Your task to perform on an android device: see sites visited before in the chrome app Image 0: 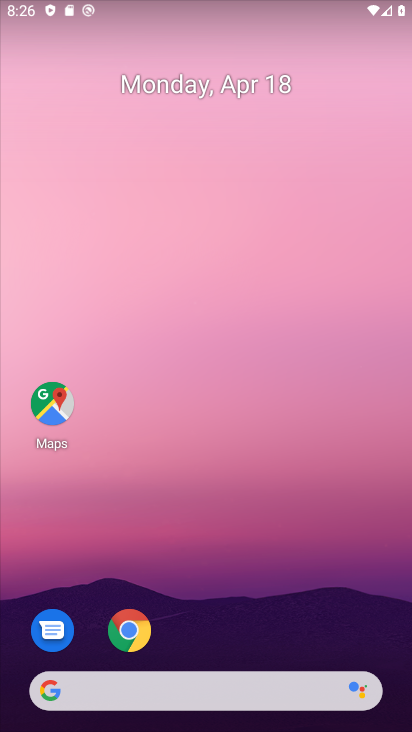
Step 0: click (124, 633)
Your task to perform on an android device: see sites visited before in the chrome app Image 1: 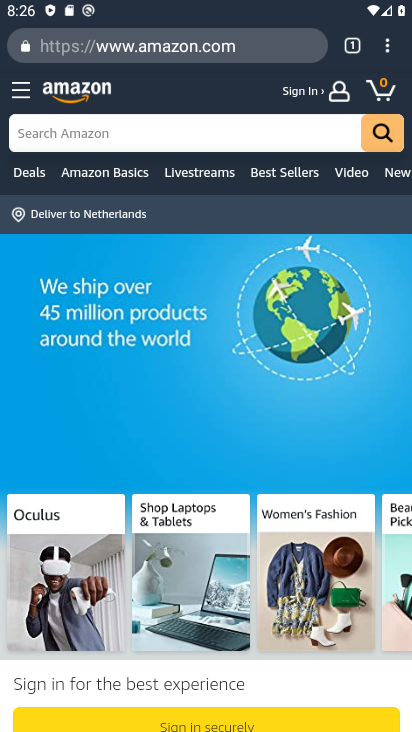
Step 1: click (388, 54)
Your task to perform on an android device: see sites visited before in the chrome app Image 2: 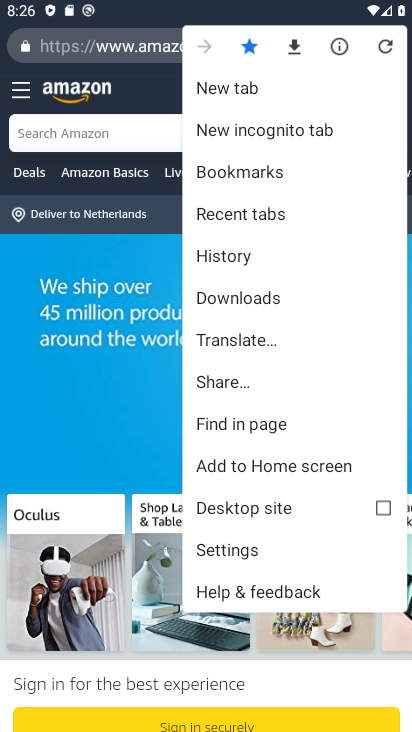
Step 2: click (236, 553)
Your task to perform on an android device: see sites visited before in the chrome app Image 3: 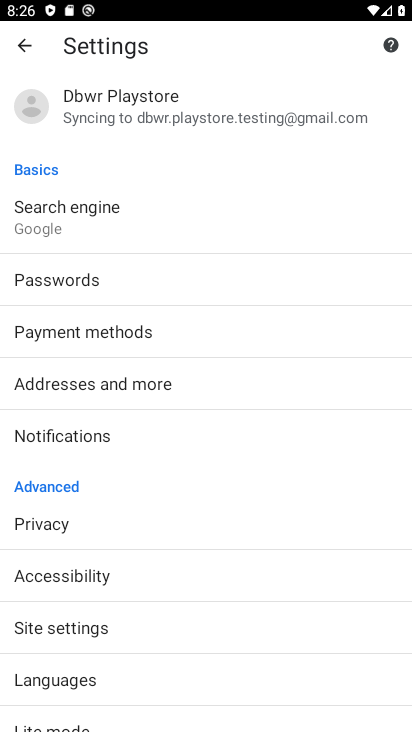
Step 3: click (27, 42)
Your task to perform on an android device: see sites visited before in the chrome app Image 4: 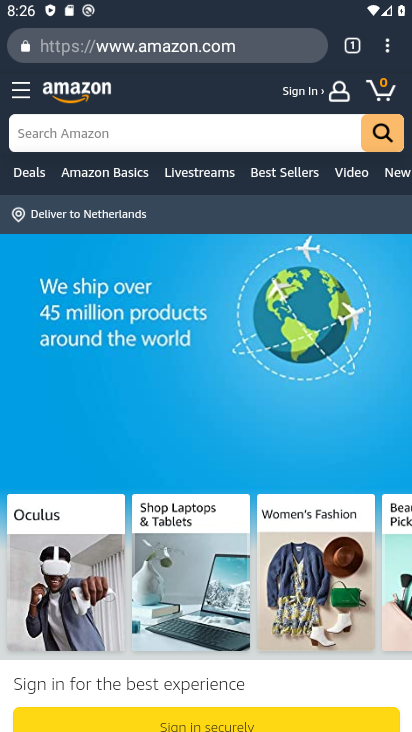
Step 4: click (382, 38)
Your task to perform on an android device: see sites visited before in the chrome app Image 5: 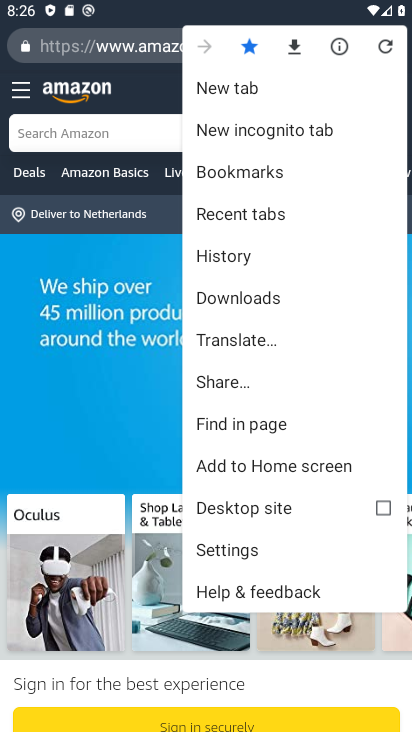
Step 5: click (241, 248)
Your task to perform on an android device: see sites visited before in the chrome app Image 6: 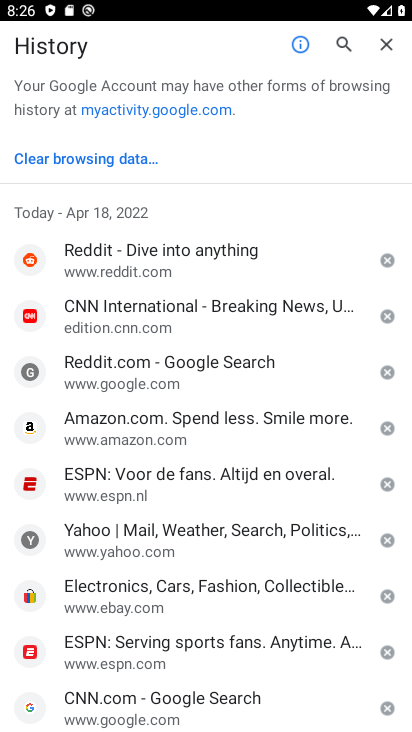
Step 6: task complete